Your task to perform on an android device: toggle show notifications on the lock screen Image 0: 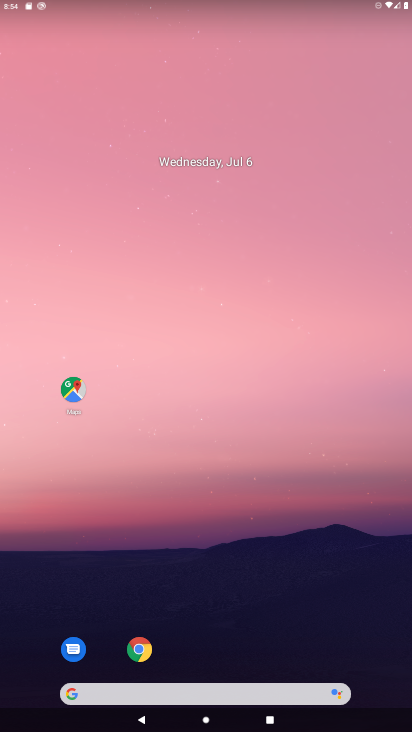
Step 0: click (253, 524)
Your task to perform on an android device: toggle show notifications on the lock screen Image 1: 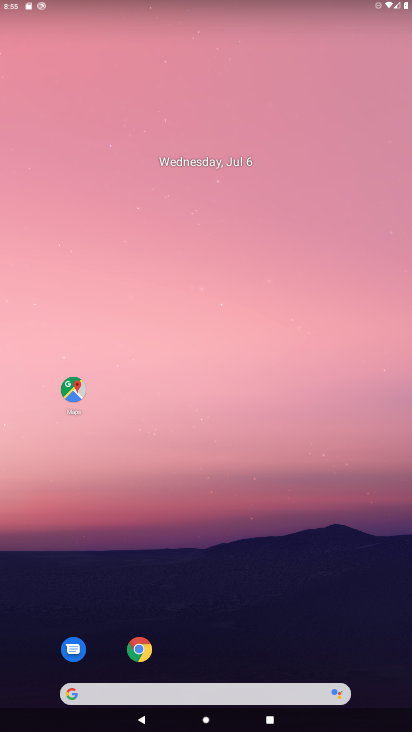
Step 1: drag from (267, 601) to (263, 91)
Your task to perform on an android device: toggle show notifications on the lock screen Image 2: 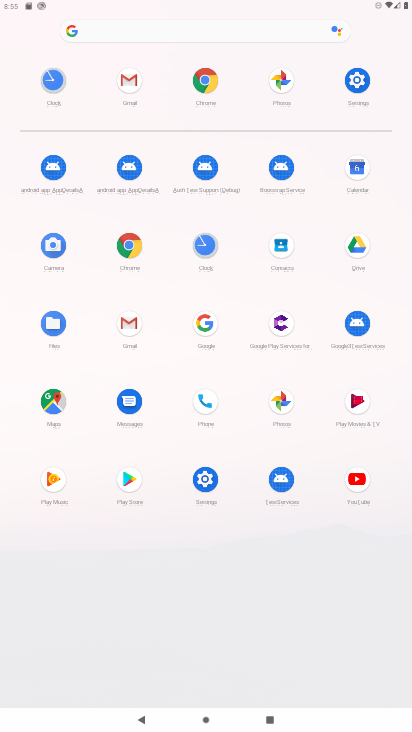
Step 2: click (209, 471)
Your task to perform on an android device: toggle show notifications on the lock screen Image 3: 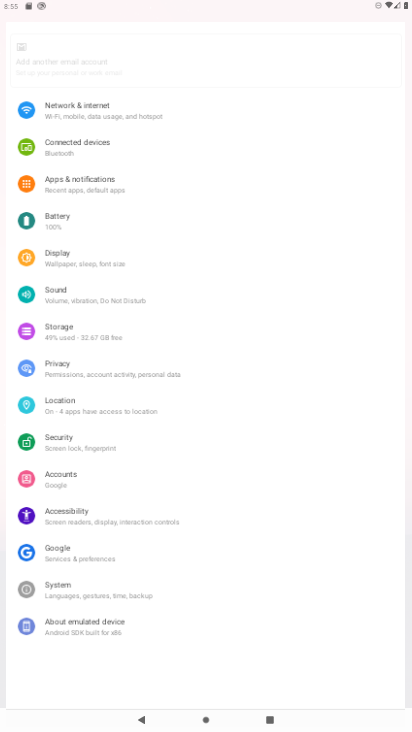
Step 3: click (209, 472)
Your task to perform on an android device: toggle show notifications on the lock screen Image 4: 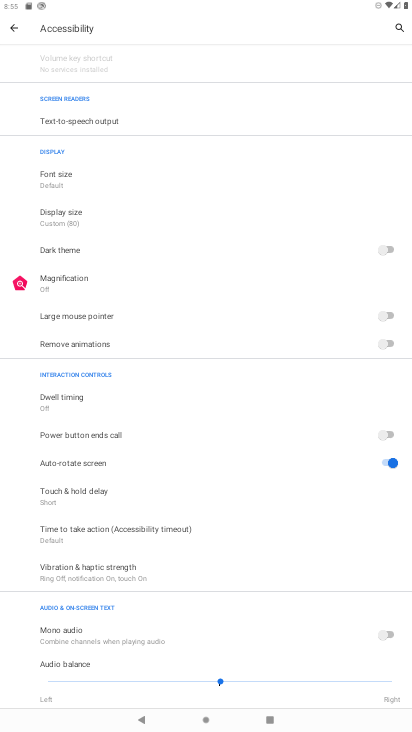
Step 4: click (12, 30)
Your task to perform on an android device: toggle show notifications on the lock screen Image 5: 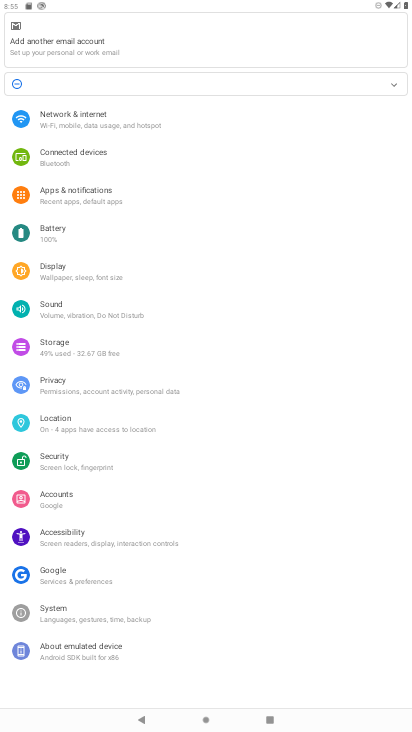
Step 5: click (75, 197)
Your task to perform on an android device: toggle show notifications on the lock screen Image 6: 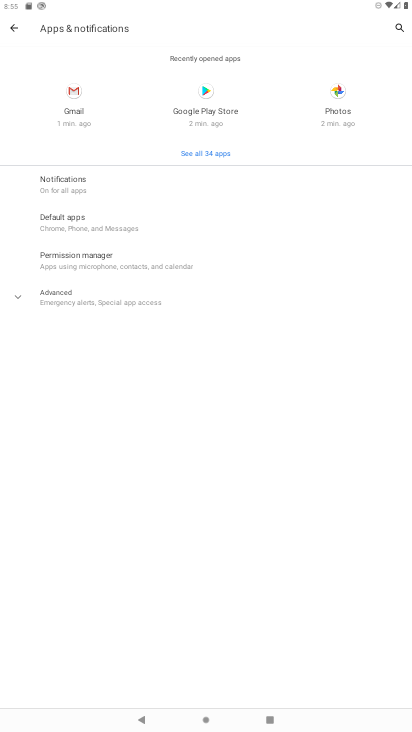
Step 6: click (72, 180)
Your task to perform on an android device: toggle show notifications on the lock screen Image 7: 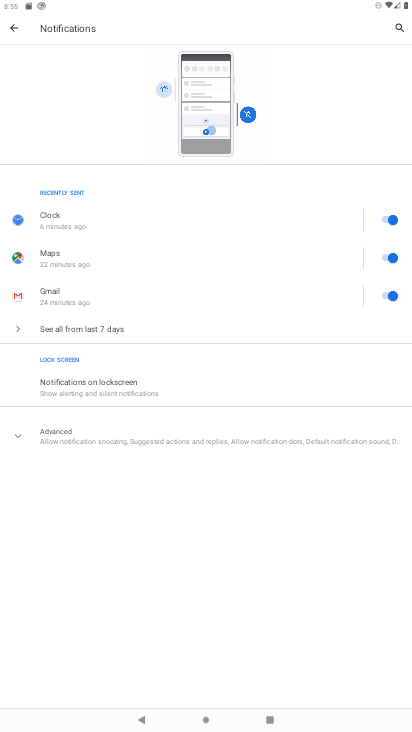
Step 7: click (76, 378)
Your task to perform on an android device: toggle show notifications on the lock screen Image 8: 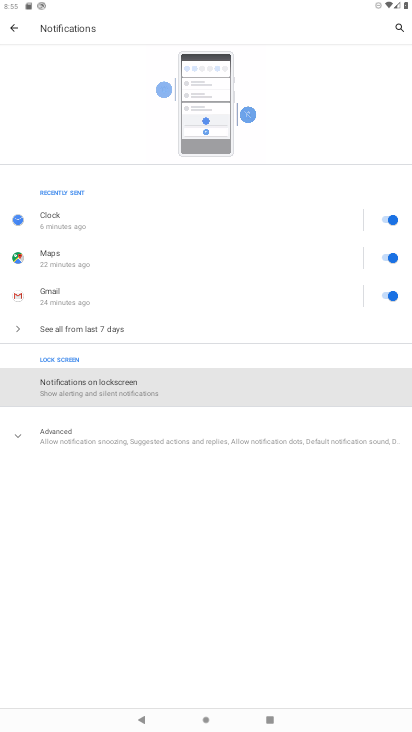
Step 8: click (76, 377)
Your task to perform on an android device: toggle show notifications on the lock screen Image 9: 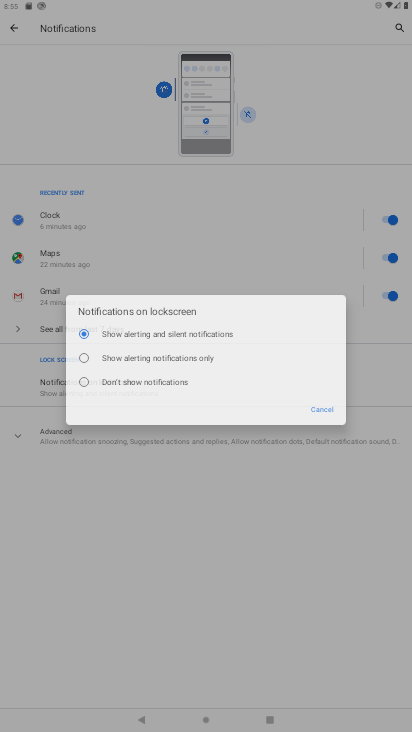
Step 9: click (76, 377)
Your task to perform on an android device: toggle show notifications on the lock screen Image 10: 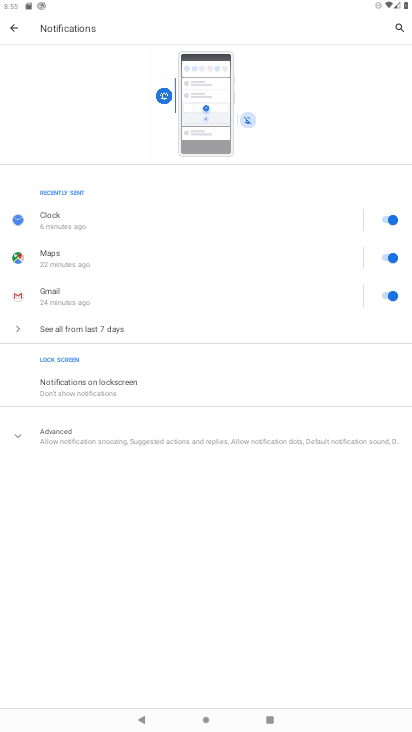
Step 10: click (104, 388)
Your task to perform on an android device: toggle show notifications on the lock screen Image 11: 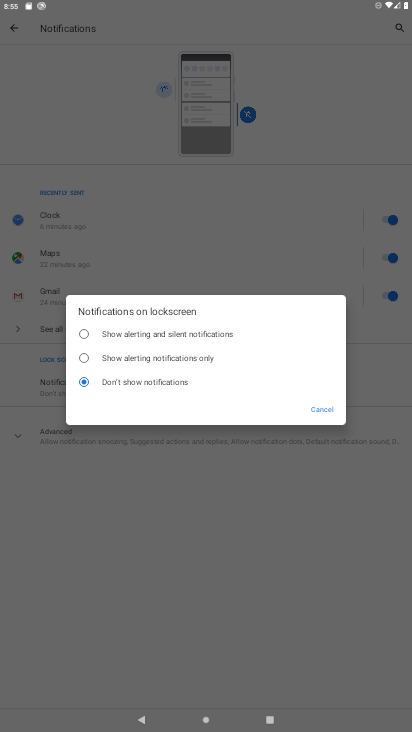
Step 11: click (81, 352)
Your task to perform on an android device: toggle show notifications on the lock screen Image 12: 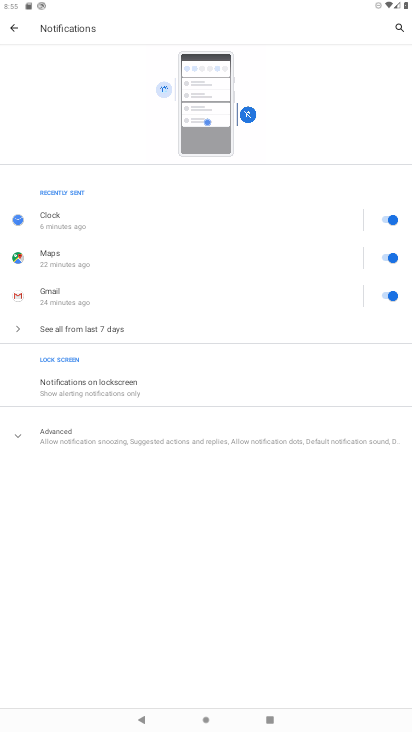
Step 12: task complete